Your task to perform on an android device: toggle notification dots Image 0: 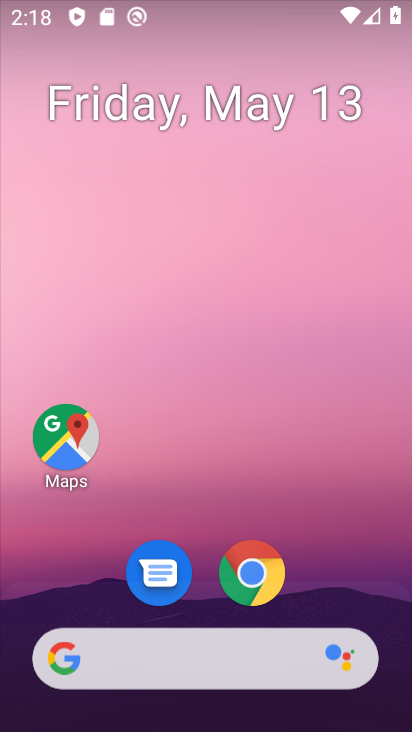
Step 0: drag from (194, 620) to (314, 156)
Your task to perform on an android device: toggle notification dots Image 1: 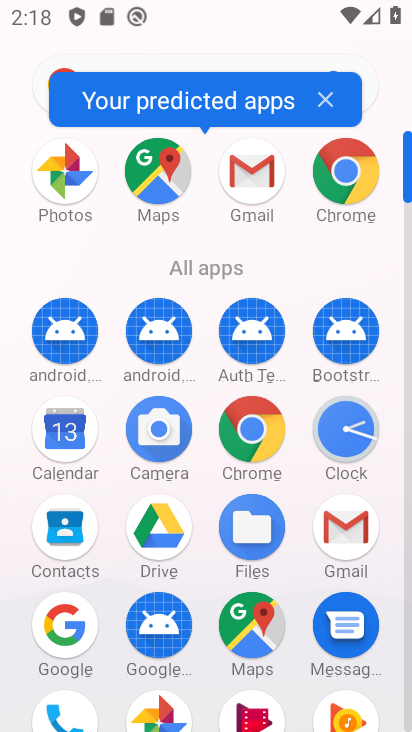
Step 1: drag from (260, 471) to (339, 242)
Your task to perform on an android device: toggle notification dots Image 2: 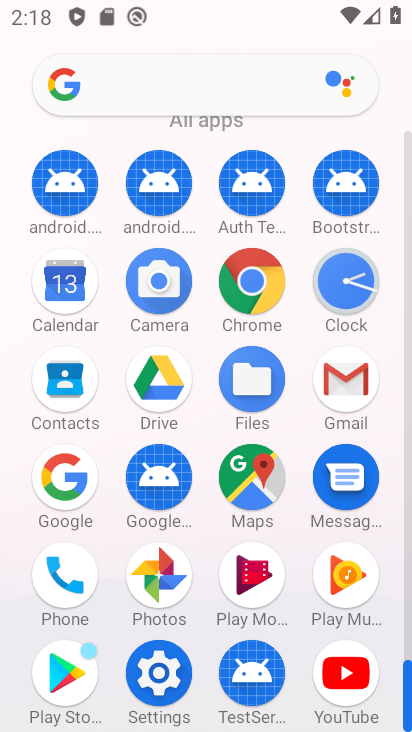
Step 2: click (151, 677)
Your task to perform on an android device: toggle notification dots Image 3: 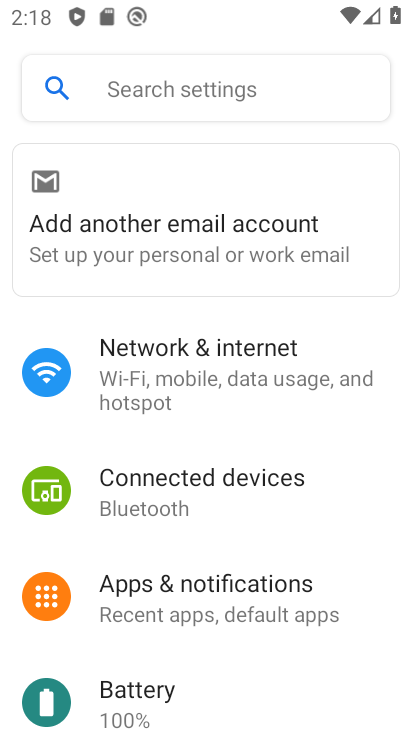
Step 3: drag from (225, 578) to (276, 431)
Your task to perform on an android device: toggle notification dots Image 4: 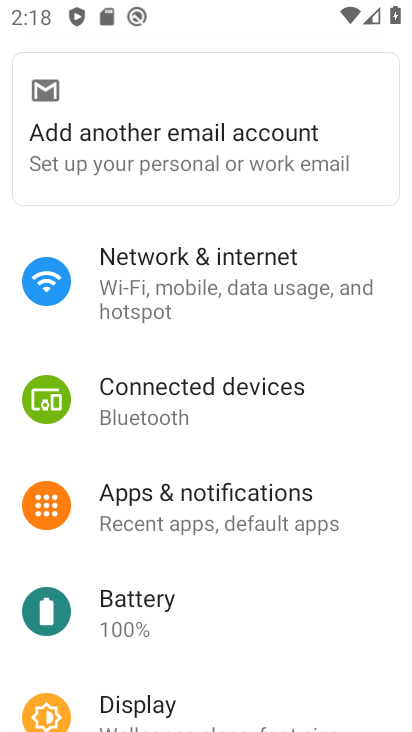
Step 4: click (267, 509)
Your task to perform on an android device: toggle notification dots Image 5: 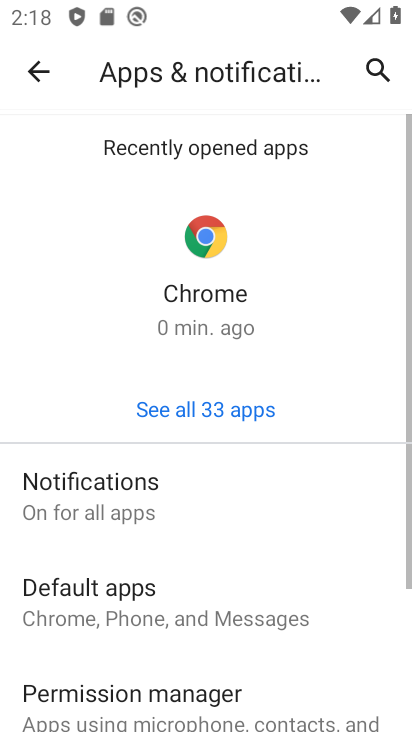
Step 5: drag from (238, 633) to (325, 395)
Your task to perform on an android device: toggle notification dots Image 6: 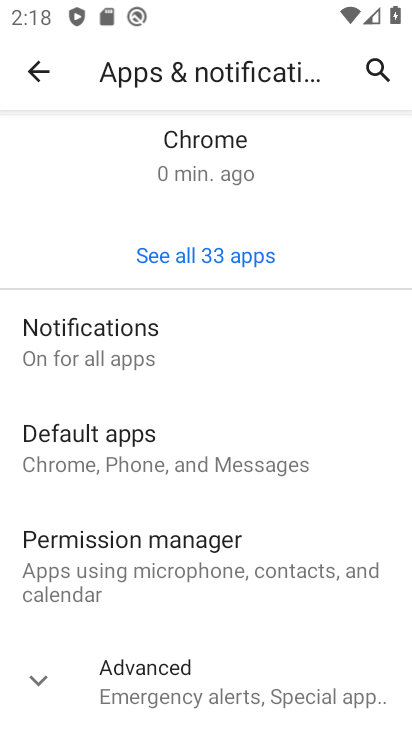
Step 6: click (206, 672)
Your task to perform on an android device: toggle notification dots Image 7: 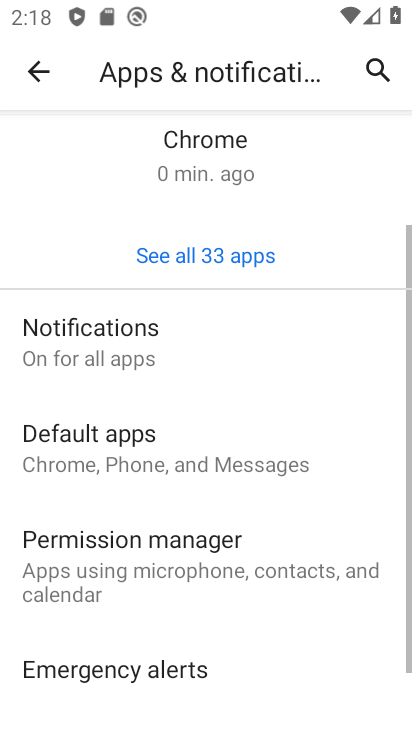
Step 7: click (258, 323)
Your task to perform on an android device: toggle notification dots Image 8: 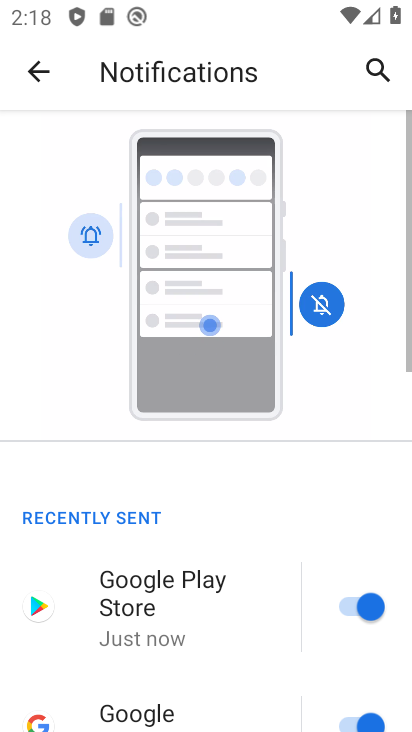
Step 8: drag from (208, 608) to (359, 225)
Your task to perform on an android device: toggle notification dots Image 9: 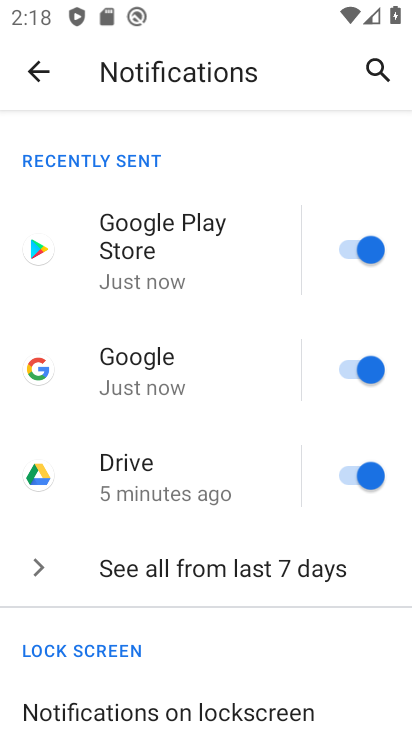
Step 9: drag from (194, 548) to (363, 114)
Your task to perform on an android device: toggle notification dots Image 10: 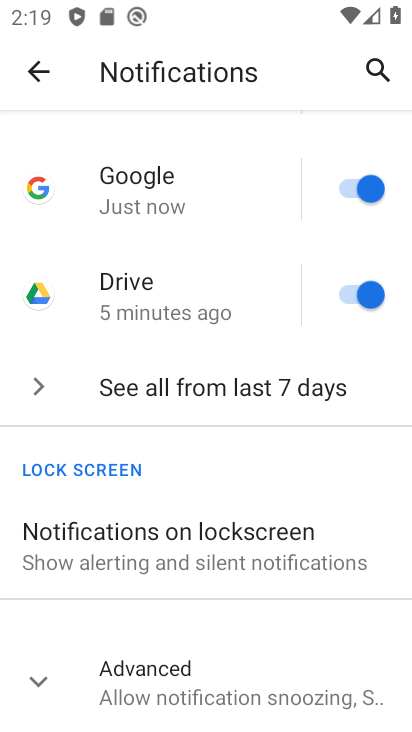
Step 10: click (172, 616)
Your task to perform on an android device: toggle notification dots Image 11: 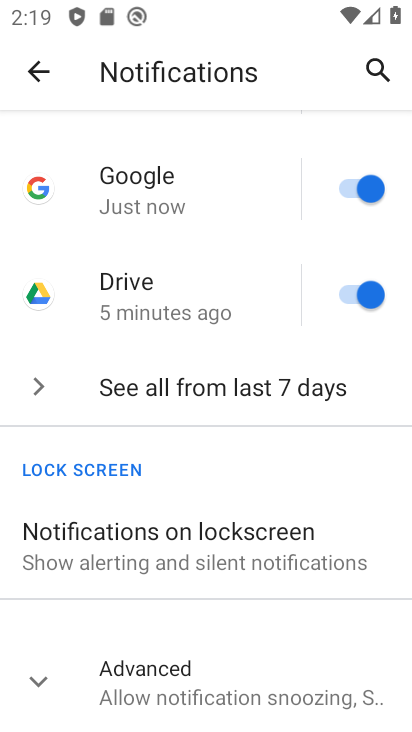
Step 11: click (204, 676)
Your task to perform on an android device: toggle notification dots Image 12: 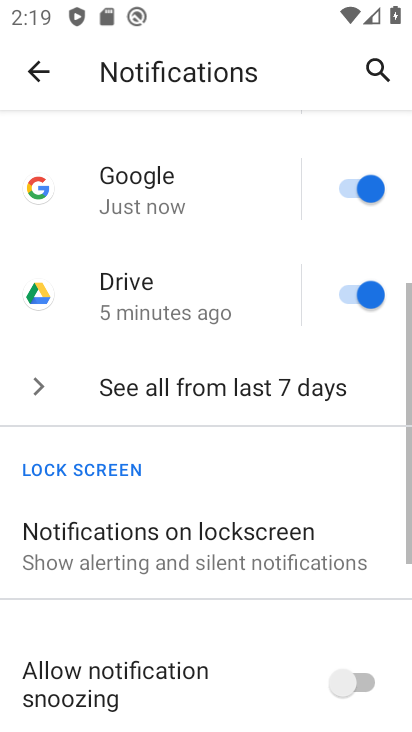
Step 12: drag from (204, 675) to (317, 267)
Your task to perform on an android device: toggle notification dots Image 13: 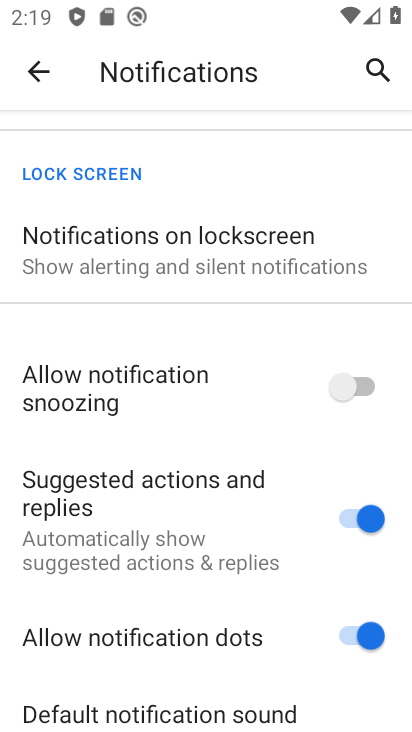
Step 13: click (352, 628)
Your task to perform on an android device: toggle notification dots Image 14: 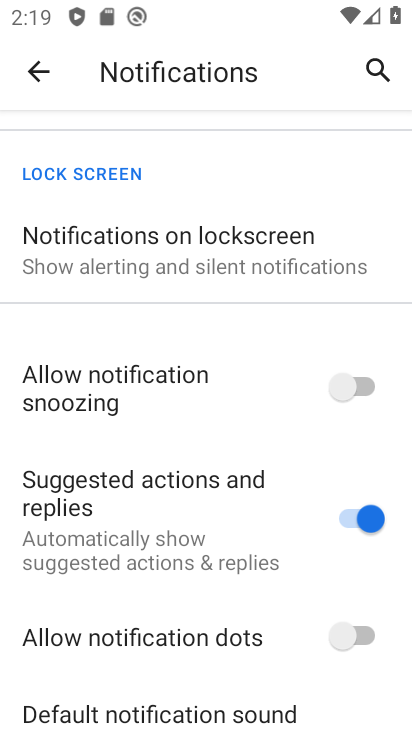
Step 14: task complete